Your task to perform on an android device: Open battery settings Image 0: 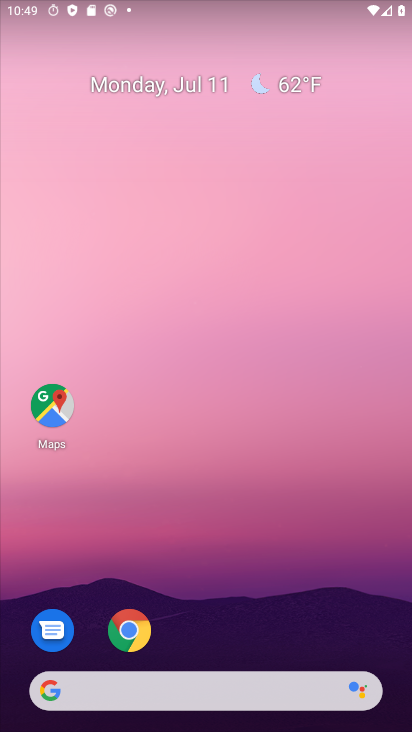
Step 0: drag from (233, 690) to (169, 1)
Your task to perform on an android device: Open battery settings Image 1: 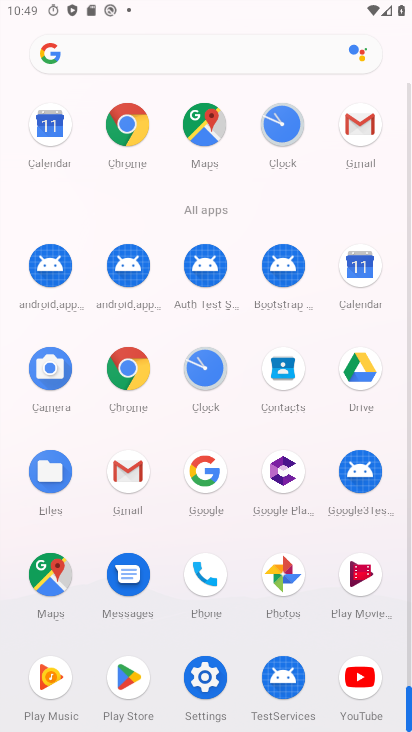
Step 1: click (192, 668)
Your task to perform on an android device: Open battery settings Image 2: 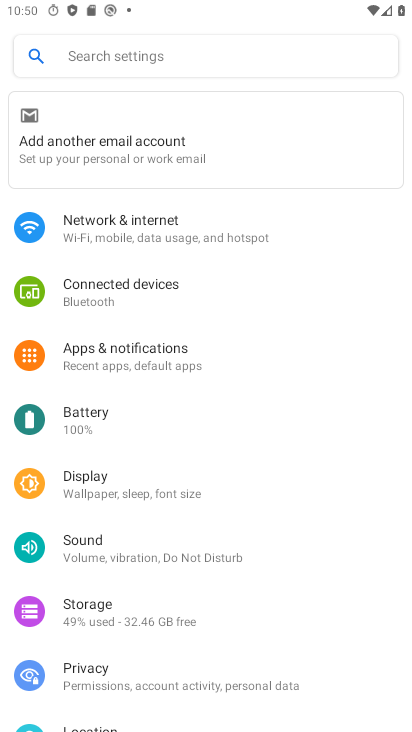
Step 2: drag from (139, 689) to (164, 263)
Your task to perform on an android device: Open battery settings Image 3: 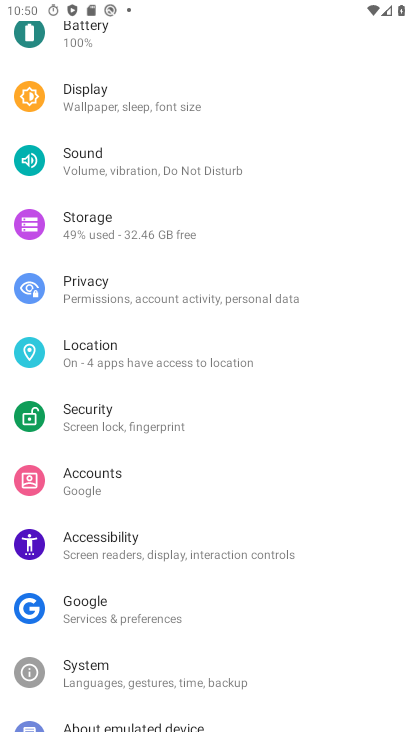
Step 3: drag from (160, 260) to (180, 723)
Your task to perform on an android device: Open battery settings Image 4: 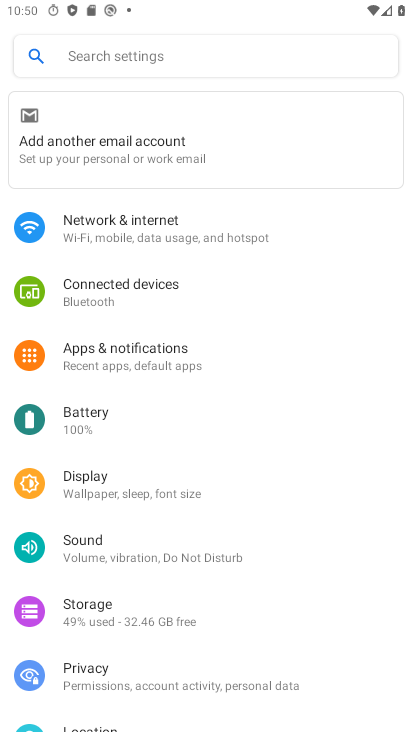
Step 4: click (115, 422)
Your task to perform on an android device: Open battery settings Image 5: 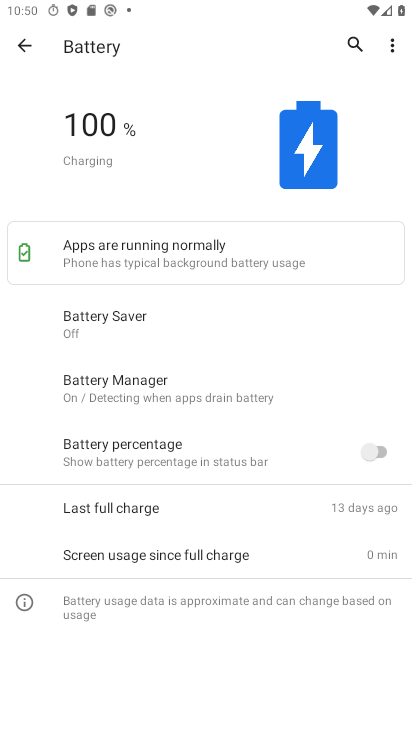
Step 5: task complete